Your task to perform on an android device: Go to accessibility settings Image 0: 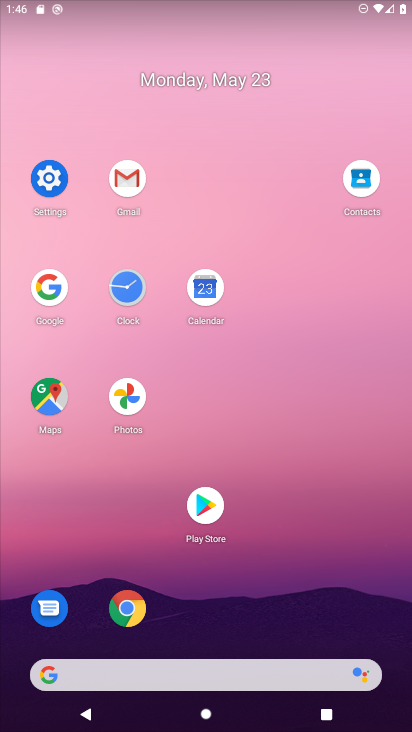
Step 0: click (62, 189)
Your task to perform on an android device: Go to accessibility settings Image 1: 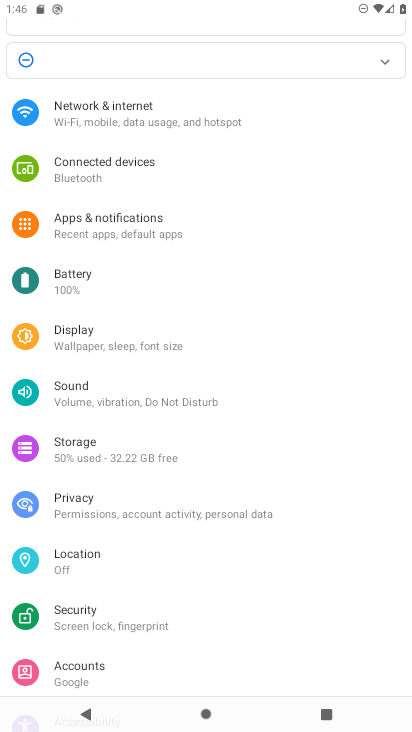
Step 1: drag from (224, 654) to (242, 233)
Your task to perform on an android device: Go to accessibility settings Image 2: 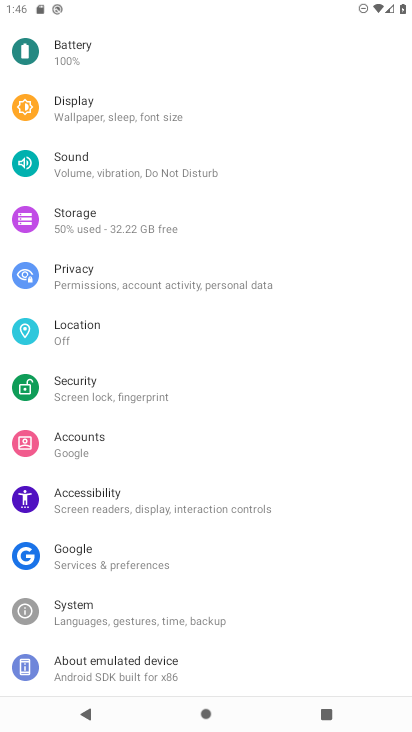
Step 2: click (182, 490)
Your task to perform on an android device: Go to accessibility settings Image 3: 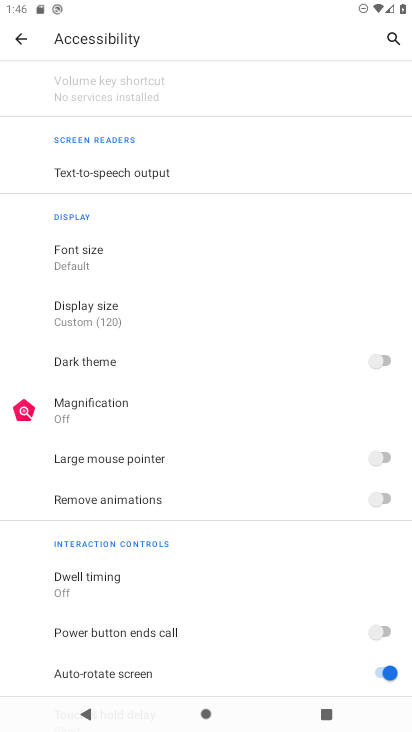
Step 3: task complete